Your task to perform on an android device: change text size in settings app Image 0: 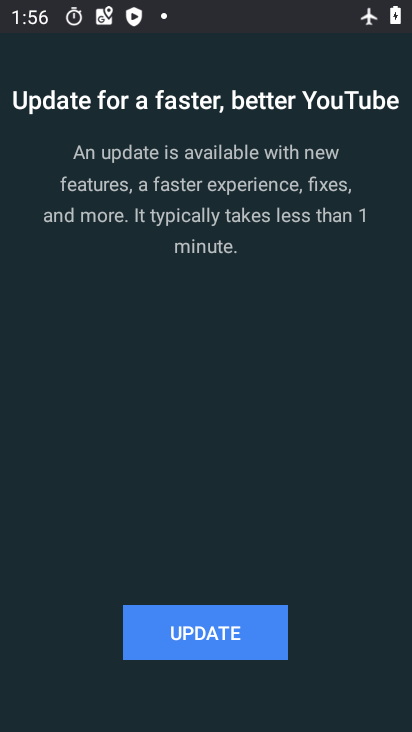
Step 0: press back button
Your task to perform on an android device: change text size in settings app Image 1: 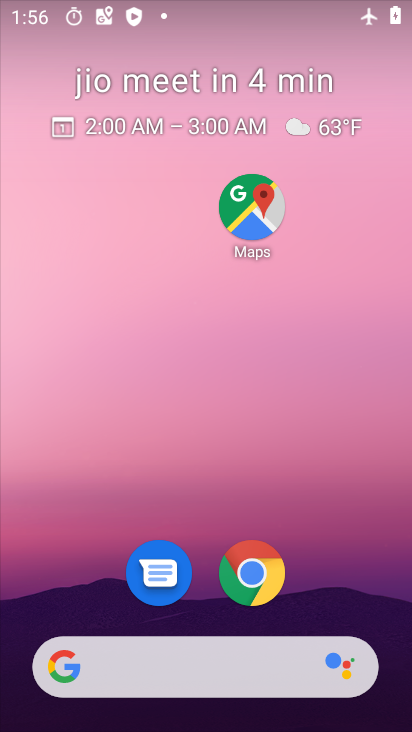
Step 1: drag from (238, 517) to (228, 107)
Your task to perform on an android device: change text size in settings app Image 2: 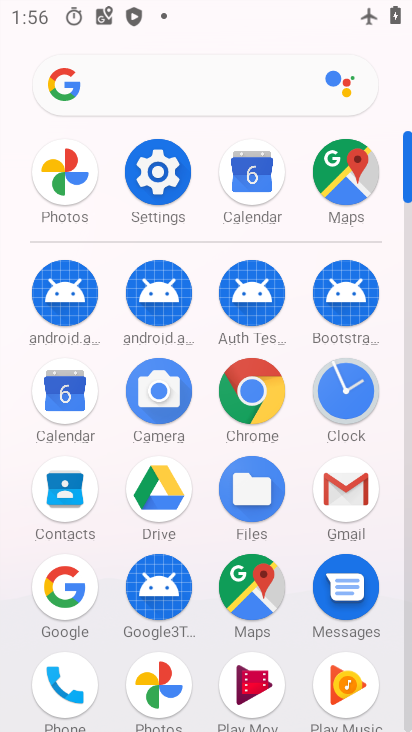
Step 2: drag from (213, 243) to (227, 42)
Your task to perform on an android device: change text size in settings app Image 3: 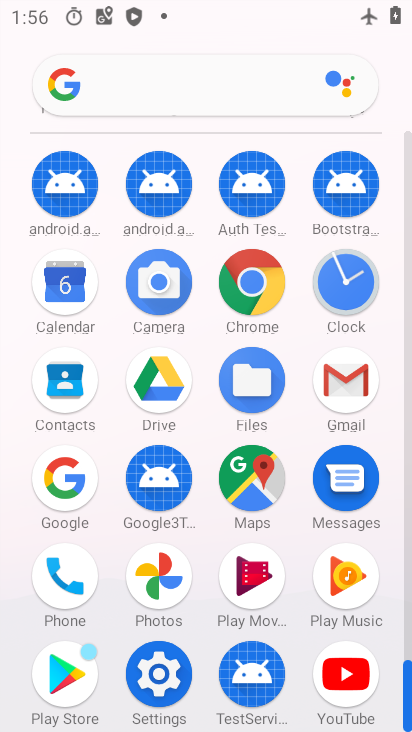
Step 3: click (162, 662)
Your task to perform on an android device: change text size in settings app Image 4: 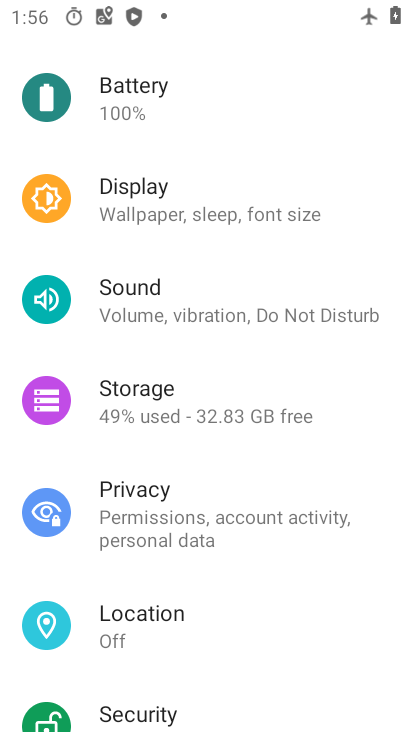
Step 4: click (294, 230)
Your task to perform on an android device: change text size in settings app Image 5: 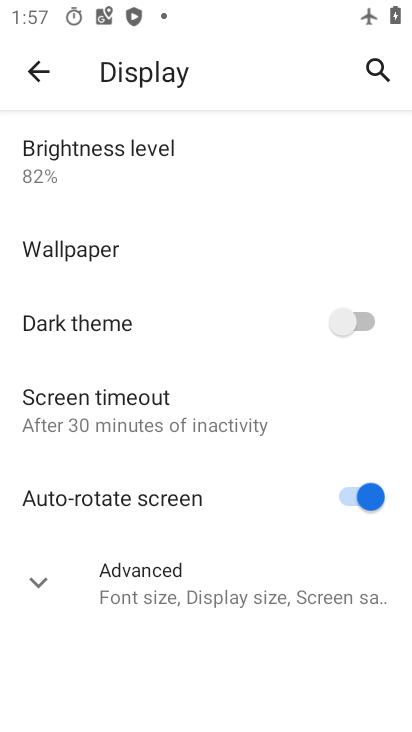
Step 5: drag from (141, 498) to (196, 234)
Your task to perform on an android device: change text size in settings app Image 6: 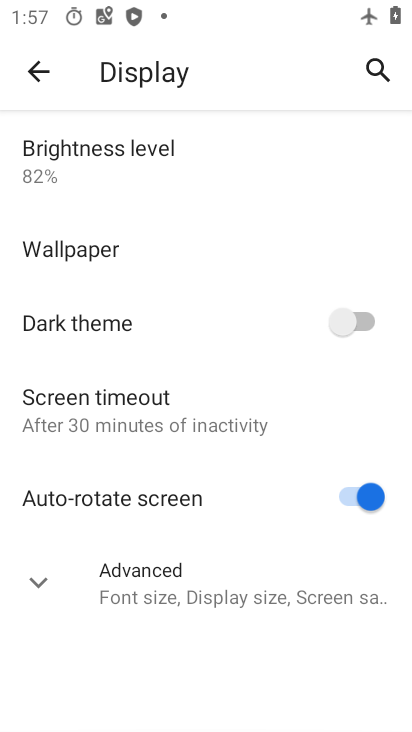
Step 6: click (175, 596)
Your task to perform on an android device: change text size in settings app Image 7: 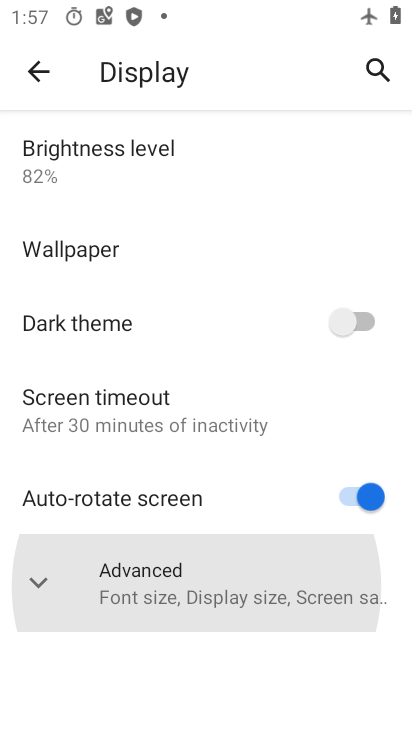
Step 7: drag from (180, 538) to (218, 210)
Your task to perform on an android device: change text size in settings app Image 8: 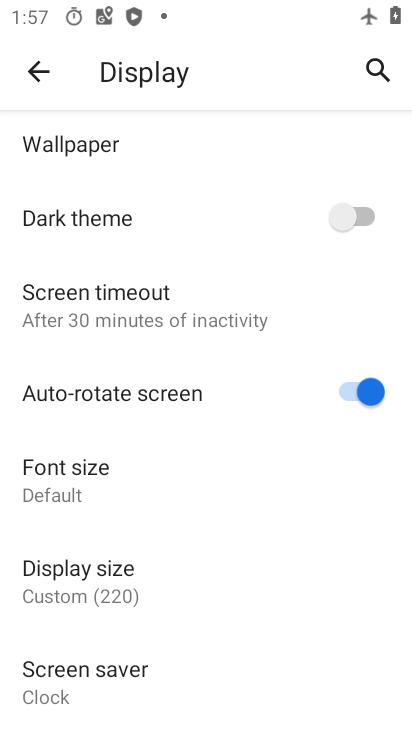
Step 8: click (178, 496)
Your task to perform on an android device: change text size in settings app Image 9: 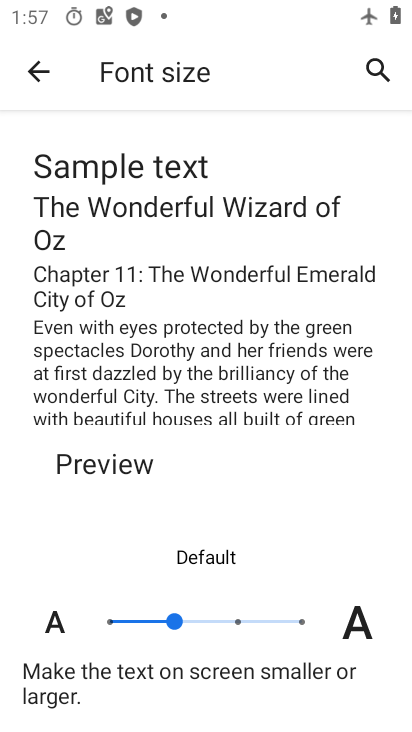
Step 9: click (240, 622)
Your task to perform on an android device: change text size in settings app Image 10: 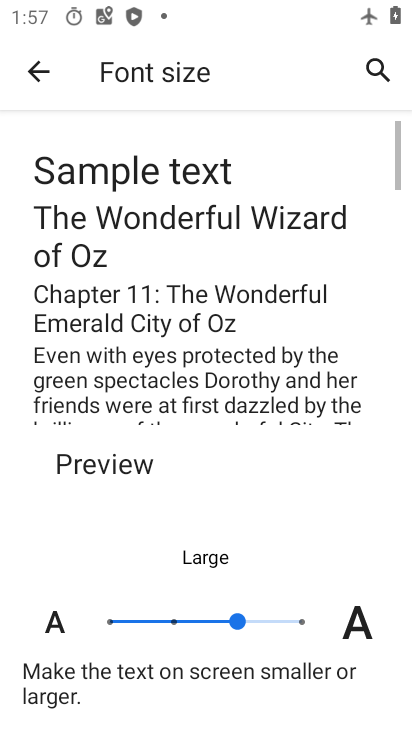
Step 10: task complete